Your task to perform on an android device: set default search engine in the chrome app Image 0: 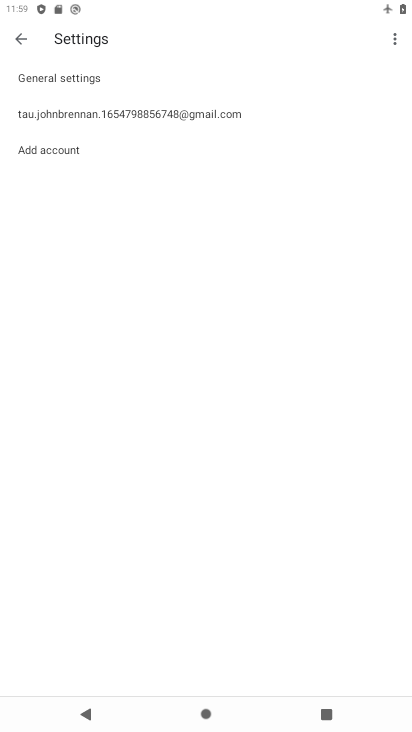
Step 0: press home button
Your task to perform on an android device: set default search engine in the chrome app Image 1: 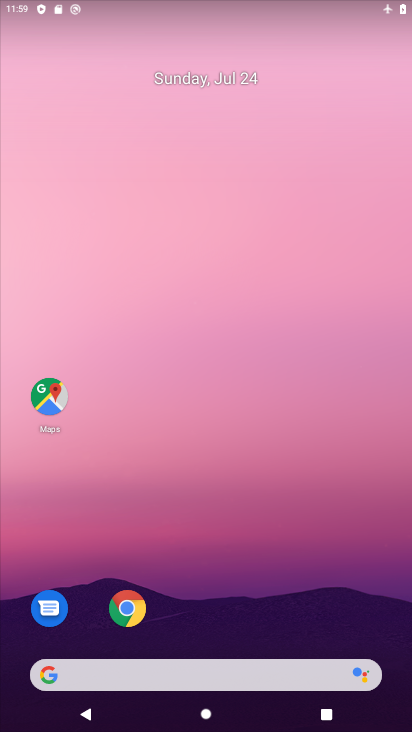
Step 1: click (133, 615)
Your task to perform on an android device: set default search engine in the chrome app Image 2: 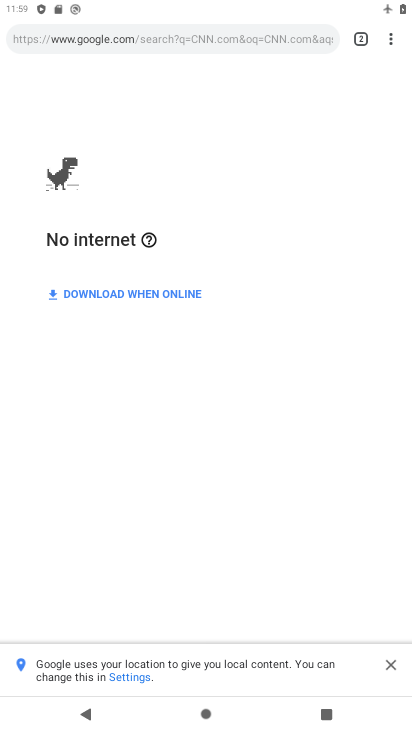
Step 2: click (391, 35)
Your task to perform on an android device: set default search engine in the chrome app Image 3: 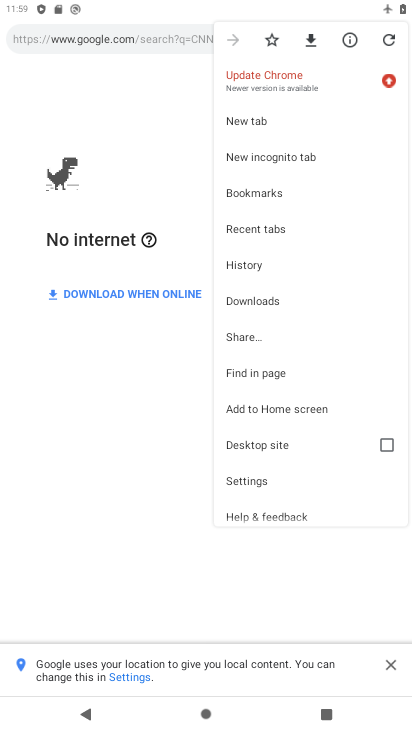
Step 3: click (279, 483)
Your task to perform on an android device: set default search engine in the chrome app Image 4: 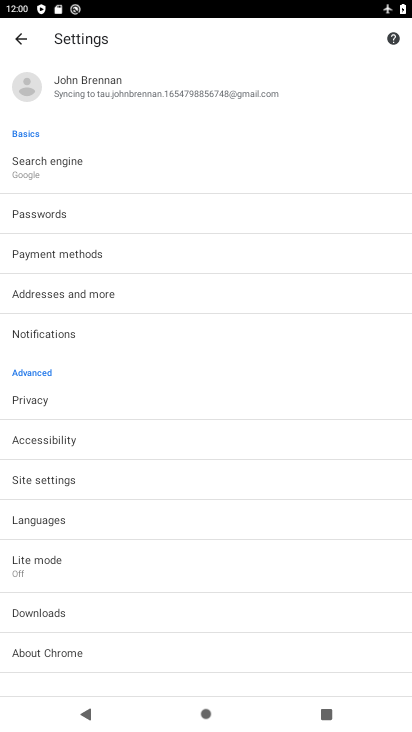
Step 4: click (112, 164)
Your task to perform on an android device: set default search engine in the chrome app Image 5: 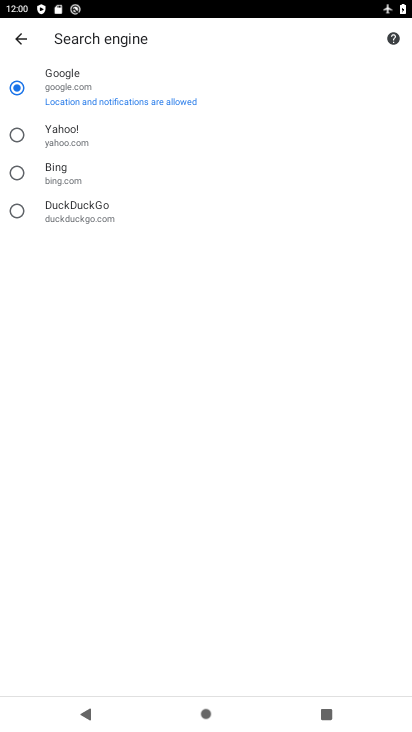
Step 5: task complete